Your task to perform on an android device: Open Youtube and go to the subscriptions tab Image 0: 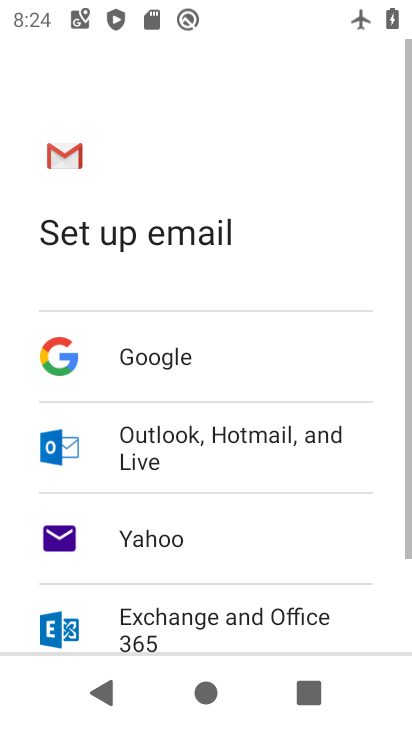
Step 0: press home button
Your task to perform on an android device: Open Youtube and go to the subscriptions tab Image 1: 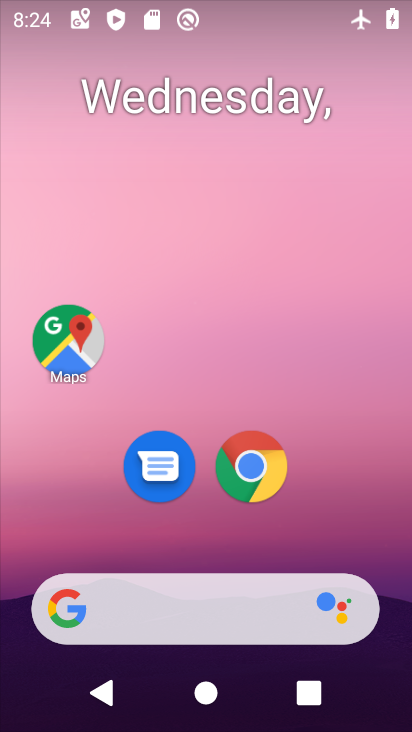
Step 1: drag from (337, 552) to (386, 45)
Your task to perform on an android device: Open Youtube and go to the subscriptions tab Image 2: 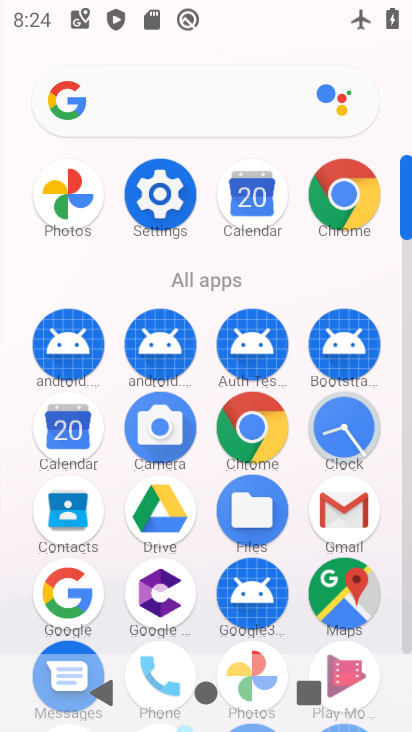
Step 2: drag from (285, 577) to (288, 317)
Your task to perform on an android device: Open Youtube and go to the subscriptions tab Image 3: 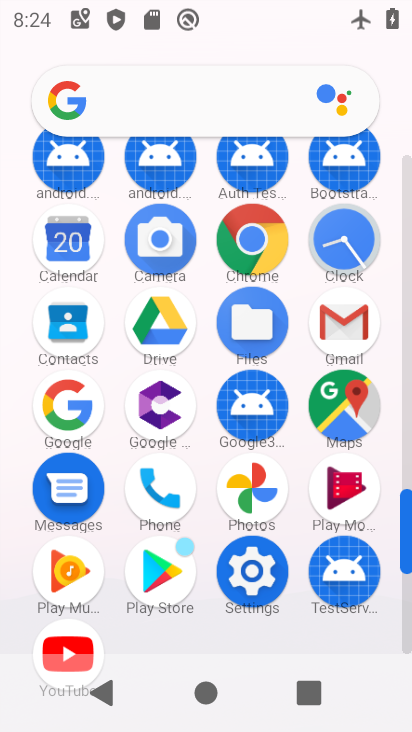
Step 3: click (49, 640)
Your task to perform on an android device: Open Youtube and go to the subscriptions tab Image 4: 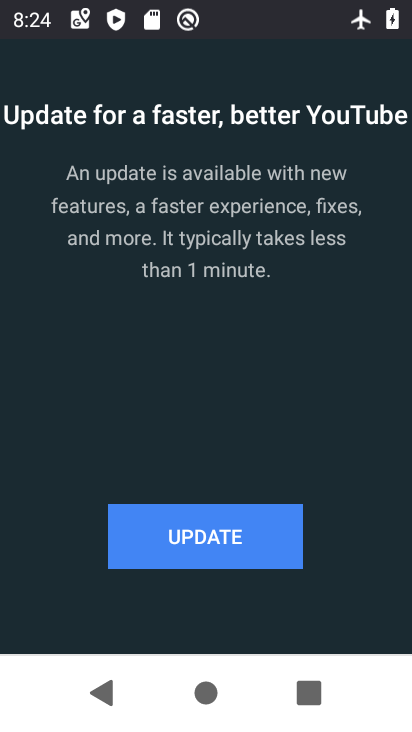
Step 4: click (188, 534)
Your task to perform on an android device: Open Youtube and go to the subscriptions tab Image 5: 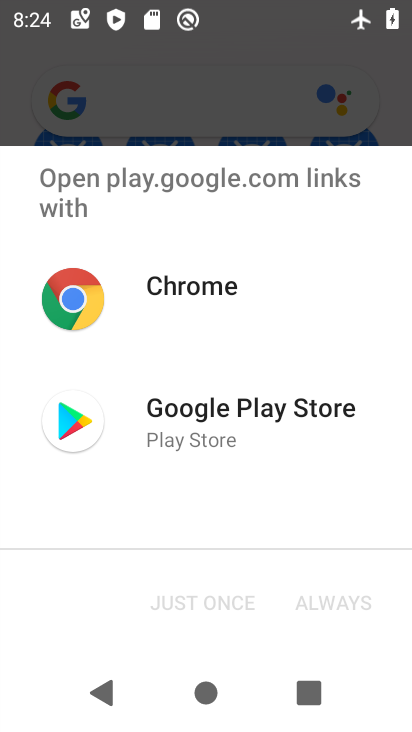
Step 5: click (185, 431)
Your task to perform on an android device: Open Youtube and go to the subscriptions tab Image 6: 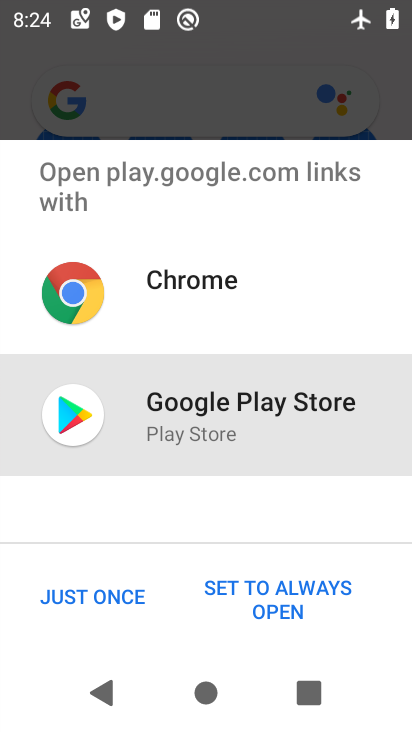
Step 6: click (132, 590)
Your task to perform on an android device: Open Youtube and go to the subscriptions tab Image 7: 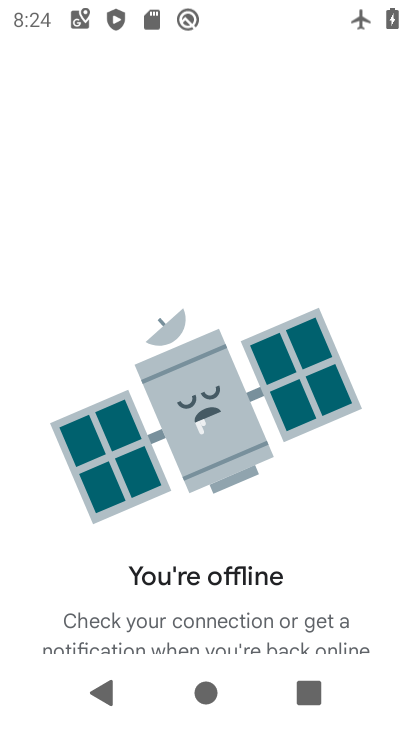
Step 7: press back button
Your task to perform on an android device: Open Youtube and go to the subscriptions tab Image 8: 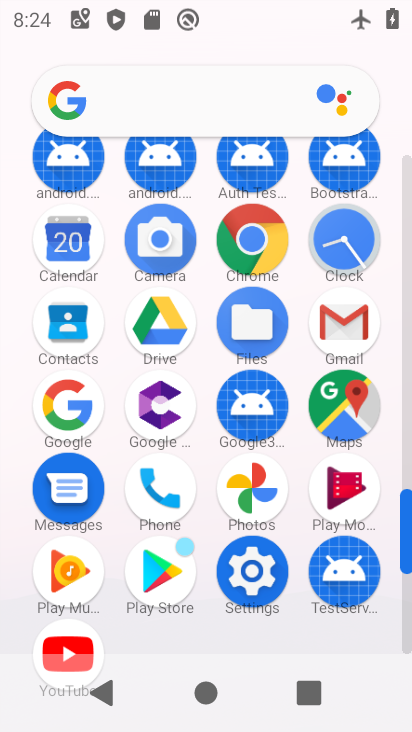
Step 8: click (61, 640)
Your task to perform on an android device: Open Youtube and go to the subscriptions tab Image 9: 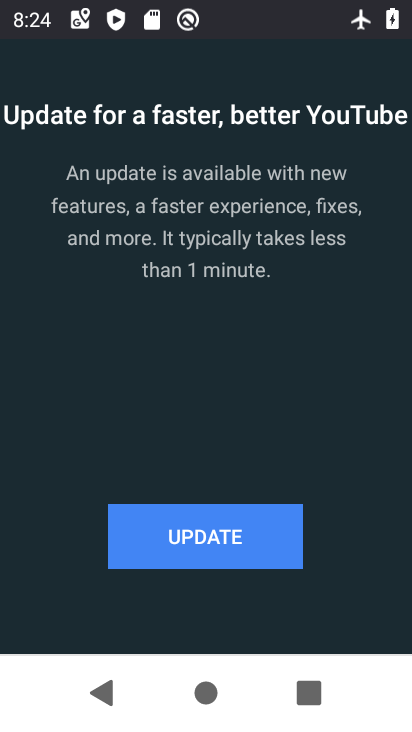
Step 9: click (260, 553)
Your task to perform on an android device: Open Youtube and go to the subscriptions tab Image 10: 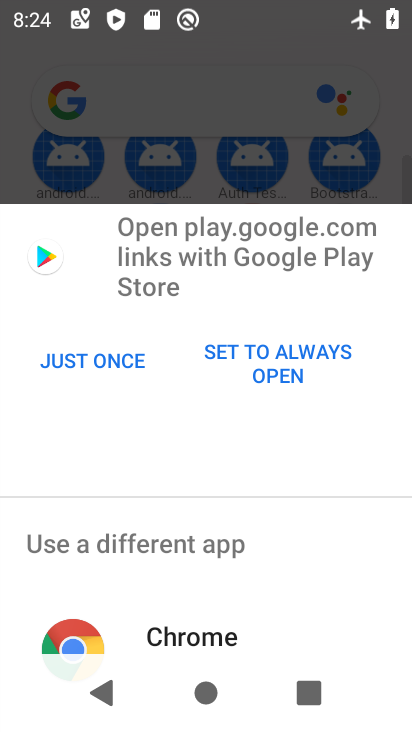
Step 10: click (82, 355)
Your task to perform on an android device: Open Youtube and go to the subscriptions tab Image 11: 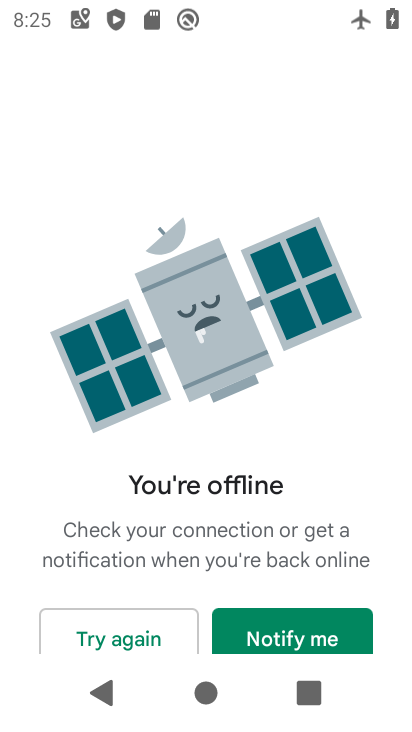
Step 11: task complete